Your task to perform on an android device: Go to network settings Image 0: 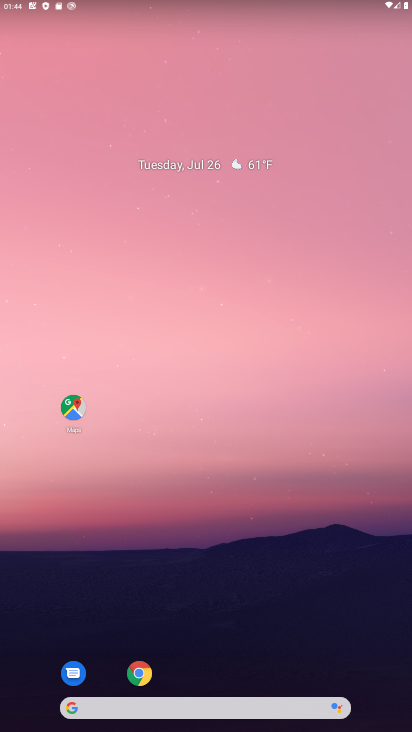
Step 0: drag from (199, 727) to (177, 221)
Your task to perform on an android device: Go to network settings Image 1: 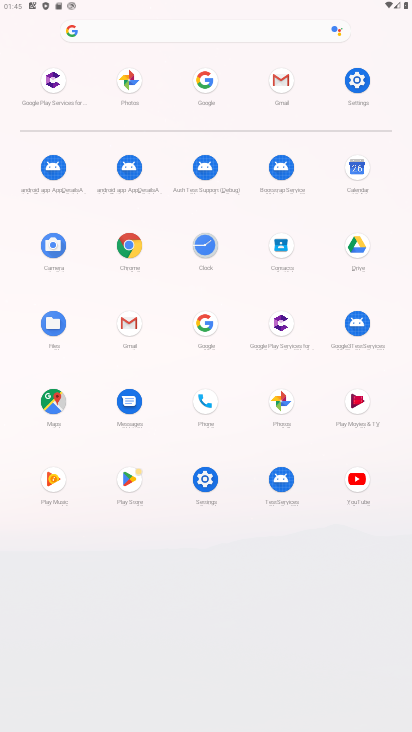
Step 1: click (360, 75)
Your task to perform on an android device: Go to network settings Image 2: 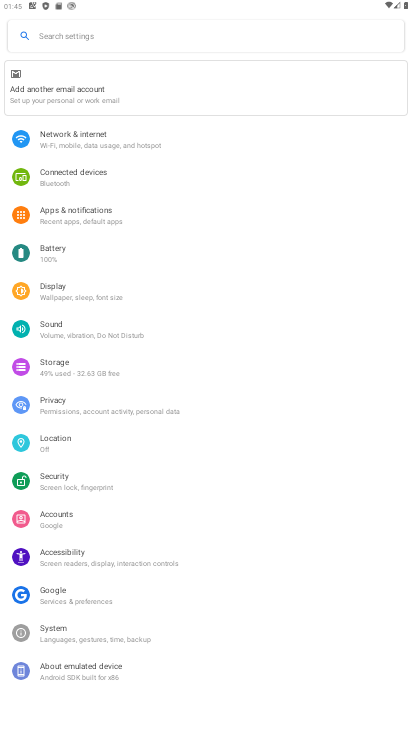
Step 2: click (78, 139)
Your task to perform on an android device: Go to network settings Image 3: 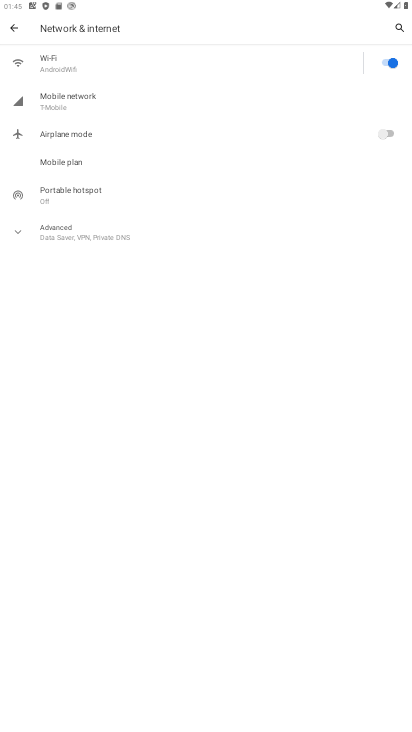
Step 3: click (75, 98)
Your task to perform on an android device: Go to network settings Image 4: 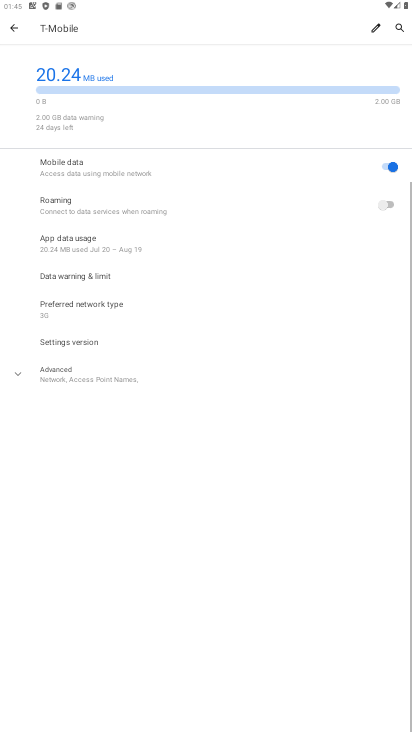
Step 4: task complete